Your task to perform on an android device: Open the Play Movies app and select the watchlist tab. Image 0: 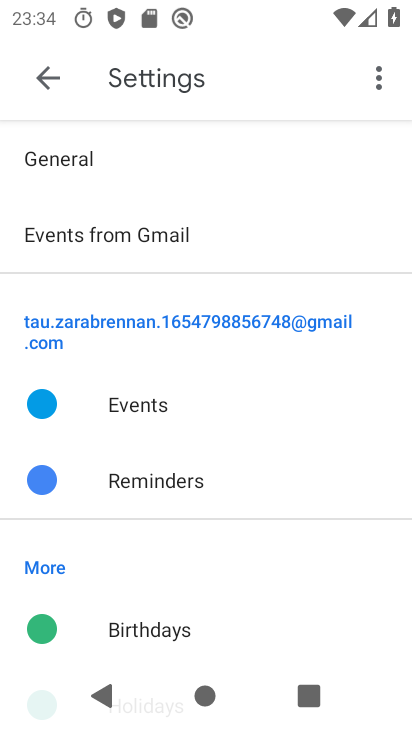
Step 0: press home button
Your task to perform on an android device: Open the Play Movies app and select the watchlist tab. Image 1: 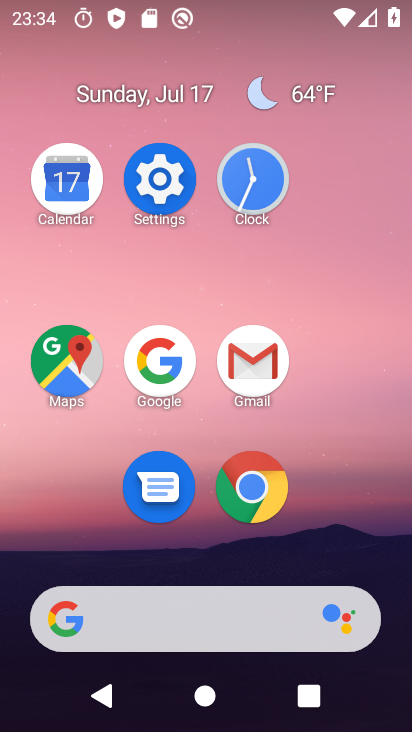
Step 1: drag from (318, 505) to (346, 137)
Your task to perform on an android device: Open the Play Movies app and select the watchlist tab. Image 2: 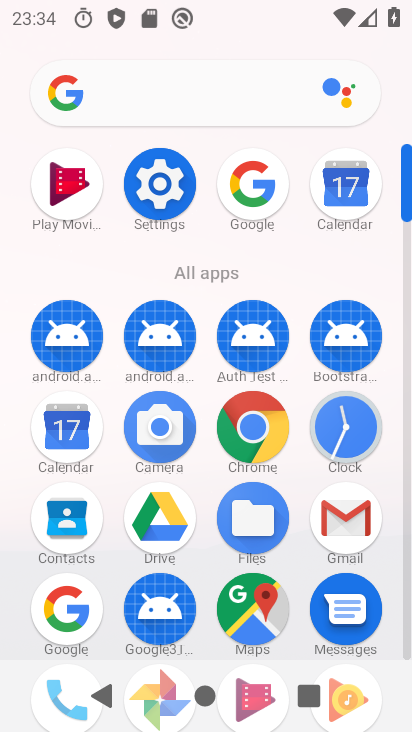
Step 2: drag from (299, 555) to (291, 222)
Your task to perform on an android device: Open the Play Movies app and select the watchlist tab. Image 3: 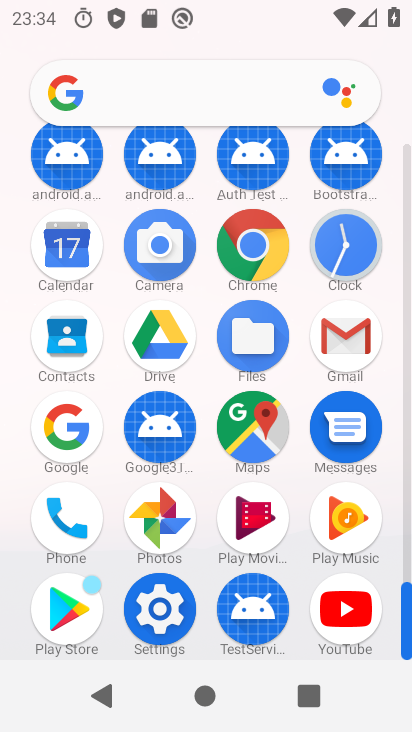
Step 3: click (266, 545)
Your task to perform on an android device: Open the Play Movies app and select the watchlist tab. Image 4: 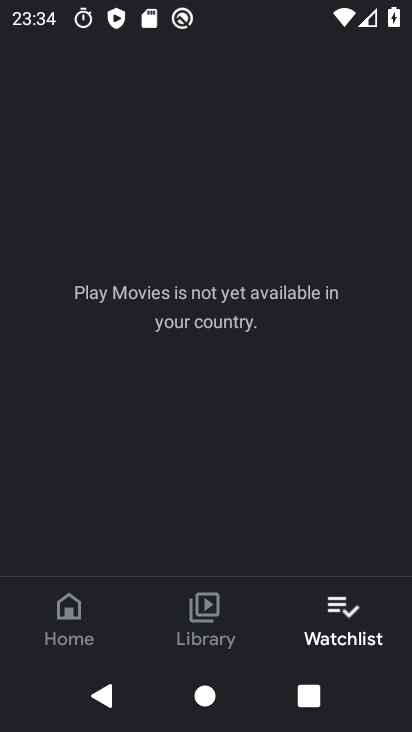
Step 4: task complete